Your task to perform on an android device: Search for sushi restaurants on Maps Image 0: 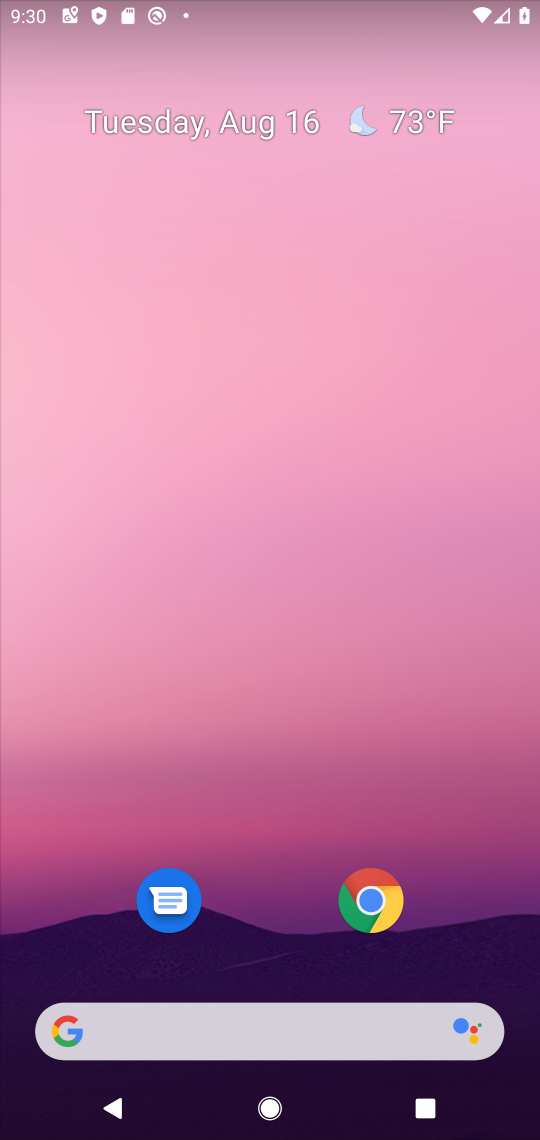
Step 0: drag from (238, 1021) to (238, 319)
Your task to perform on an android device: Search for sushi restaurants on Maps Image 1: 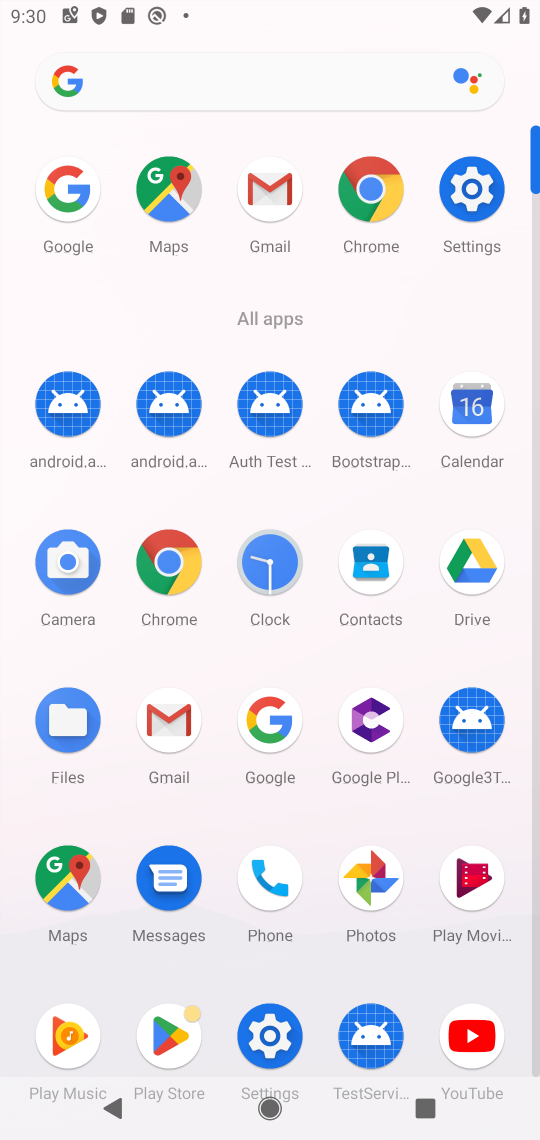
Step 1: click (66, 861)
Your task to perform on an android device: Search for sushi restaurants on Maps Image 2: 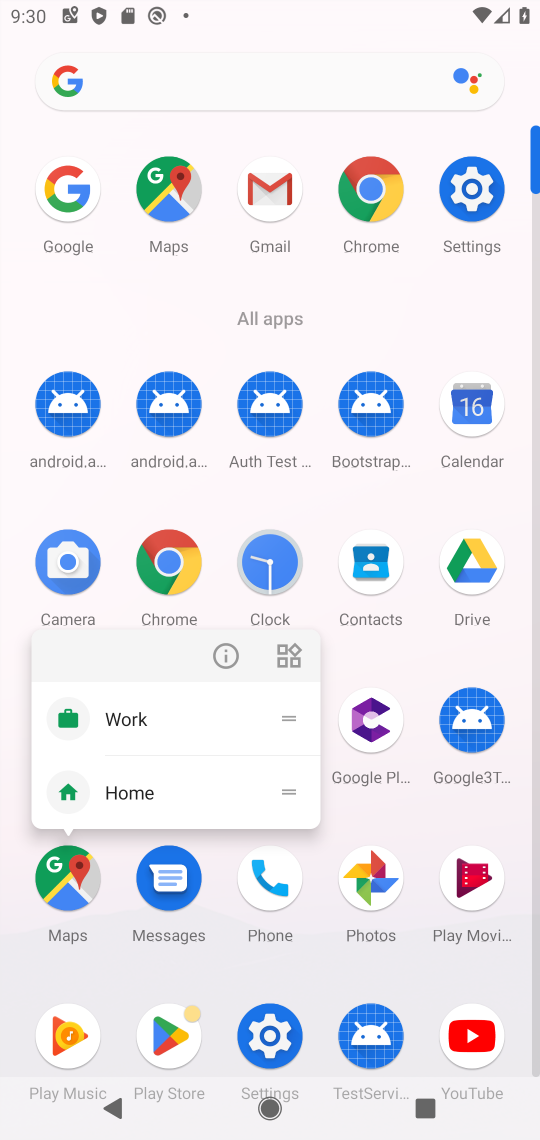
Step 2: click (84, 811)
Your task to perform on an android device: Search for sushi restaurants on Maps Image 3: 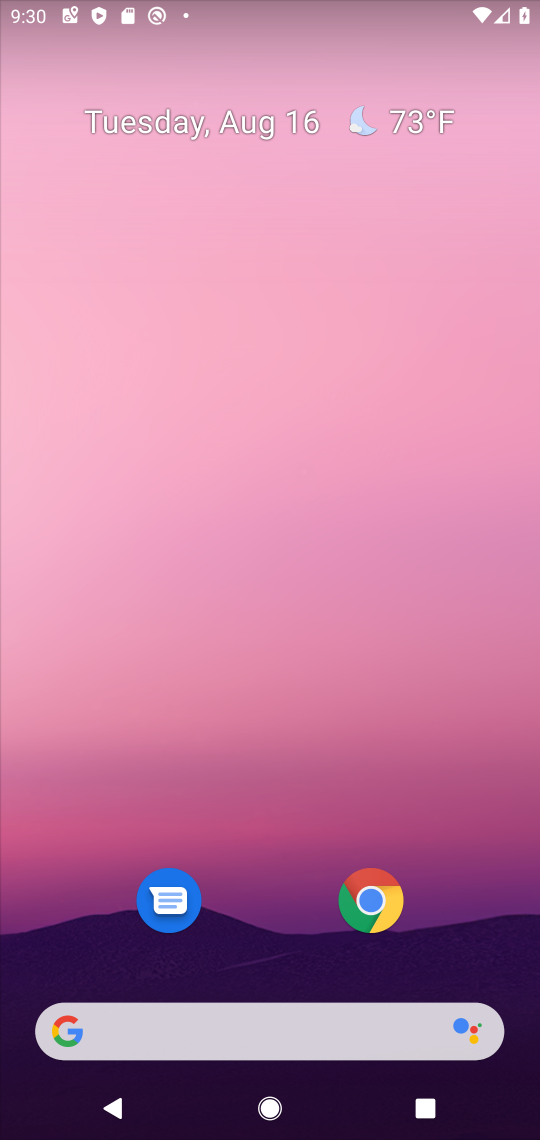
Step 3: drag from (236, 991) to (288, 372)
Your task to perform on an android device: Search for sushi restaurants on Maps Image 4: 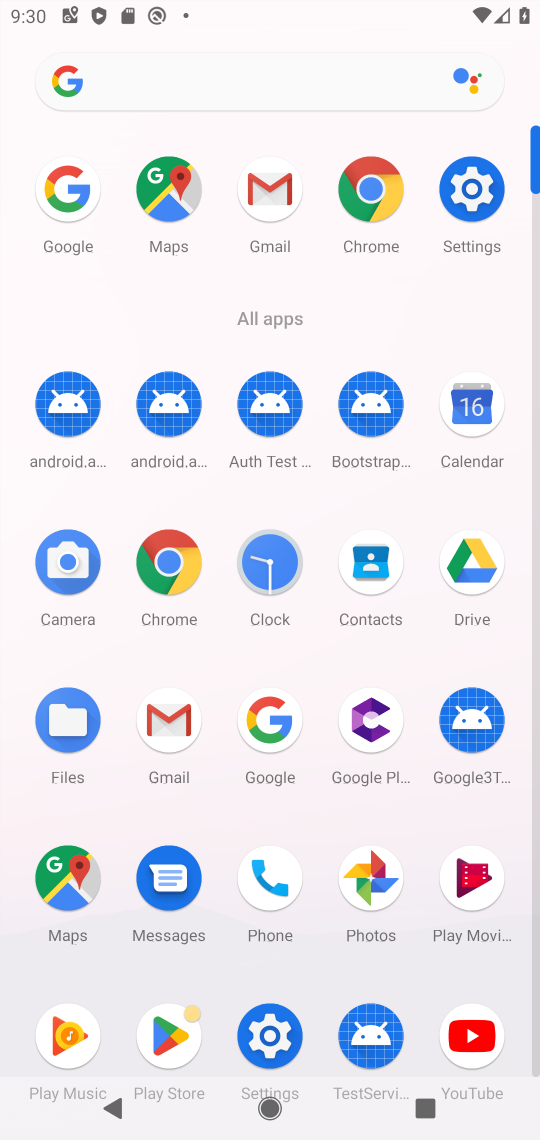
Step 4: click (77, 880)
Your task to perform on an android device: Search for sushi restaurants on Maps Image 5: 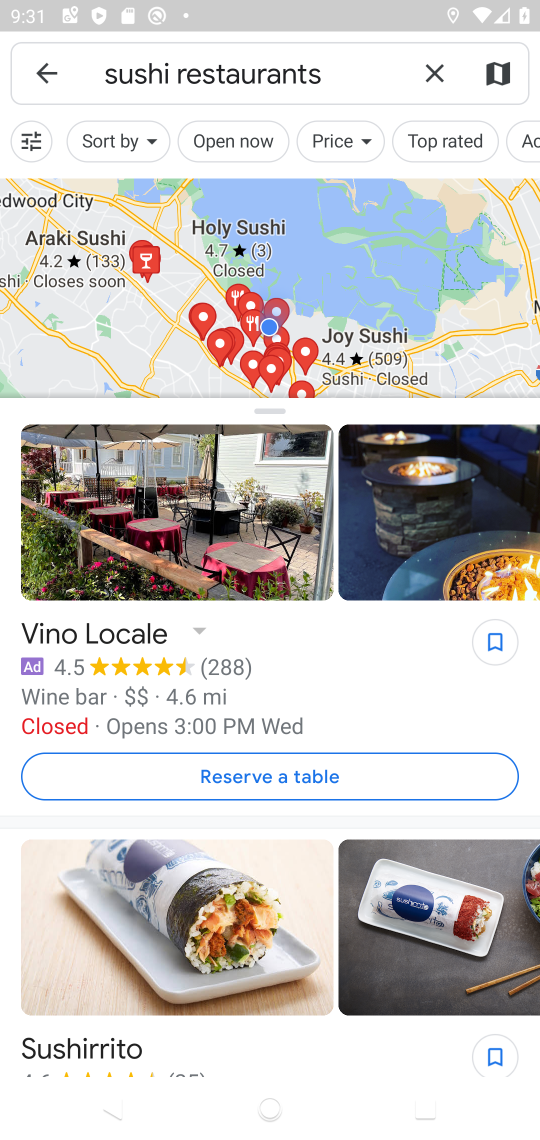
Step 5: task complete